Your task to perform on an android device: change notifications settings Image 0: 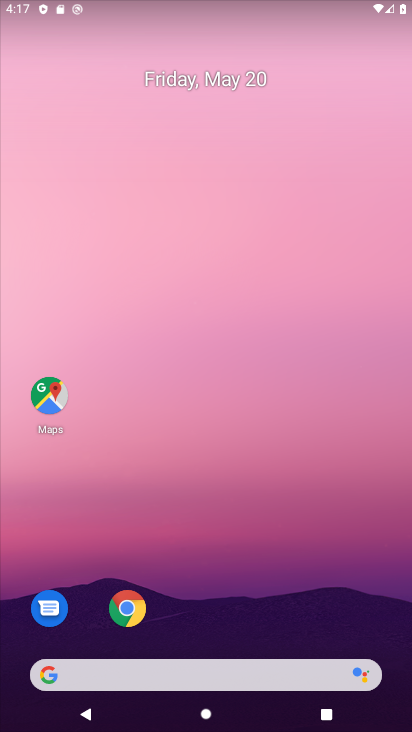
Step 0: drag from (205, 649) to (110, 7)
Your task to perform on an android device: change notifications settings Image 1: 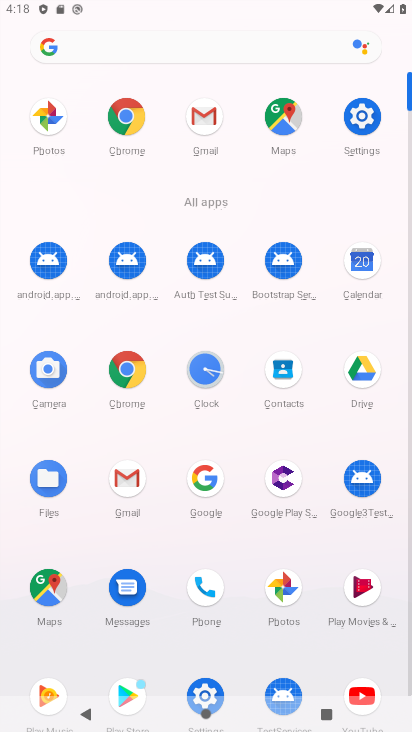
Step 1: click (361, 127)
Your task to perform on an android device: change notifications settings Image 2: 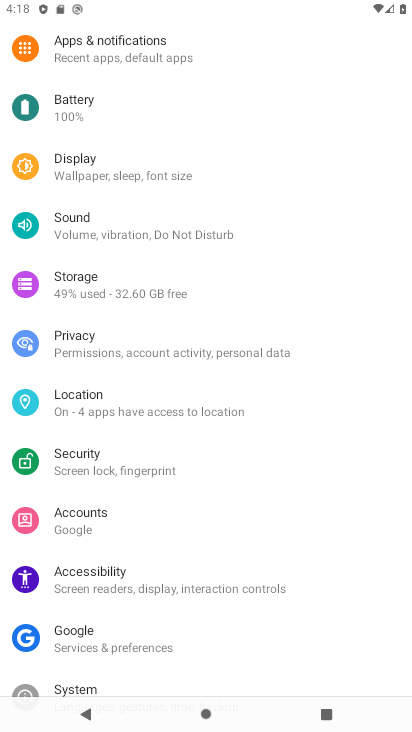
Step 2: click (104, 49)
Your task to perform on an android device: change notifications settings Image 3: 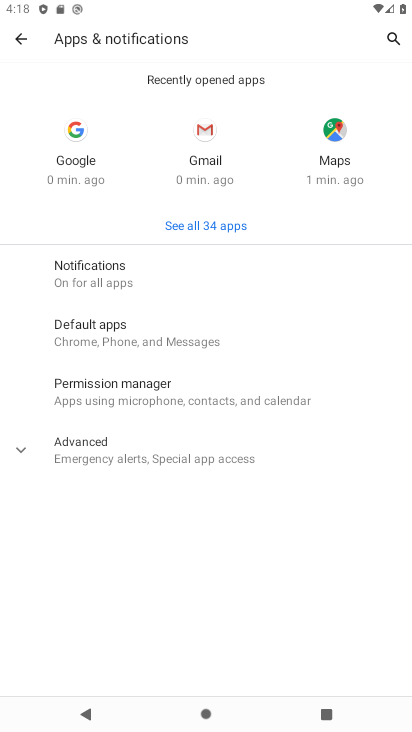
Step 3: click (77, 443)
Your task to perform on an android device: change notifications settings Image 4: 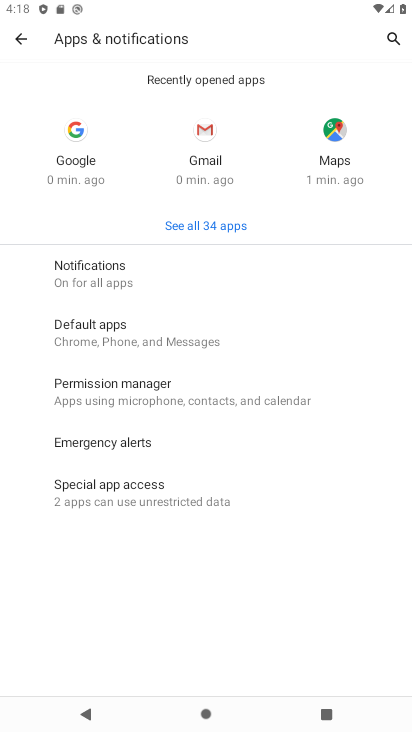
Step 4: click (92, 276)
Your task to perform on an android device: change notifications settings Image 5: 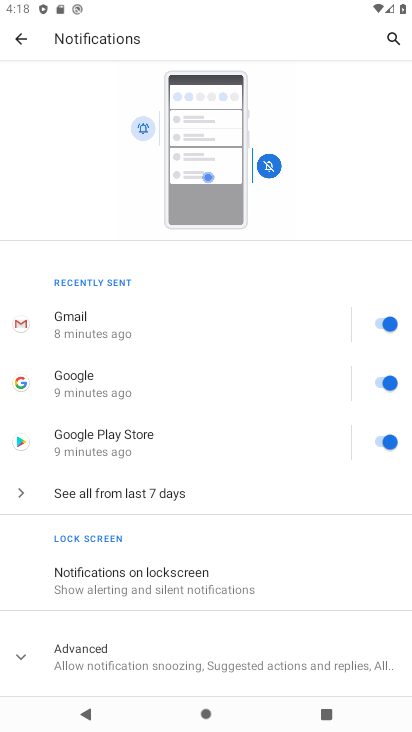
Step 5: task complete